Your task to perform on an android device: open a bookmark in the chrome app Image 0: 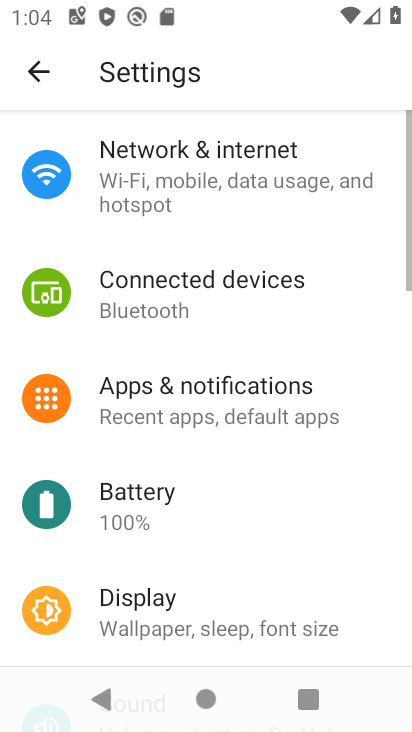
Step 0: press home button
Your task to perform on an android device: open a bookmark in the chrome app Image 1: 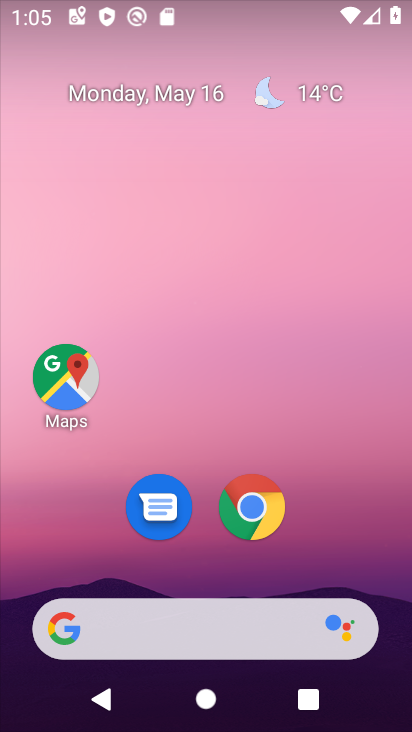
Step 1: click (255, 511)
Your task to perform on an android device: open a bookmark in the chrome app Image 2: 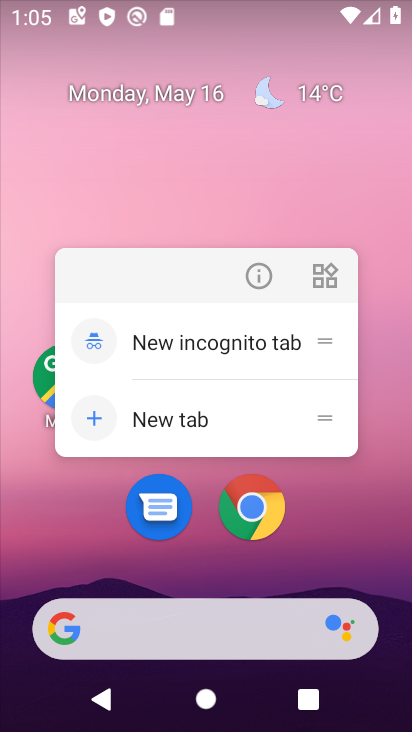
Step 2: click (255, 511)
Your task to perform on an android device: open a bookmark in the chrome app Image 3: 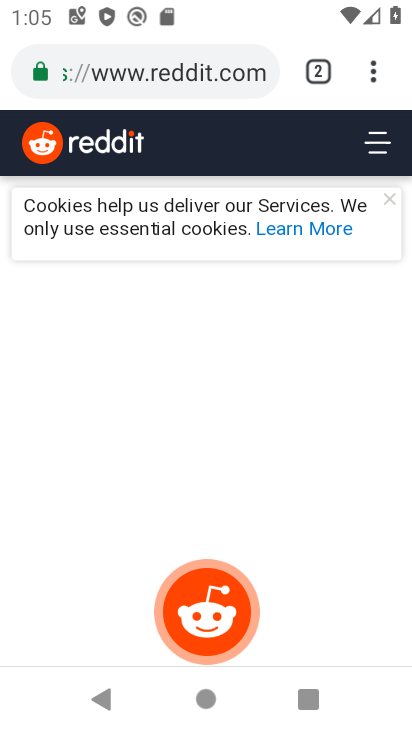
Step 3: click (366, 70)
Your task to perform on an android device: open a bookmark in the chrome app Image 4: 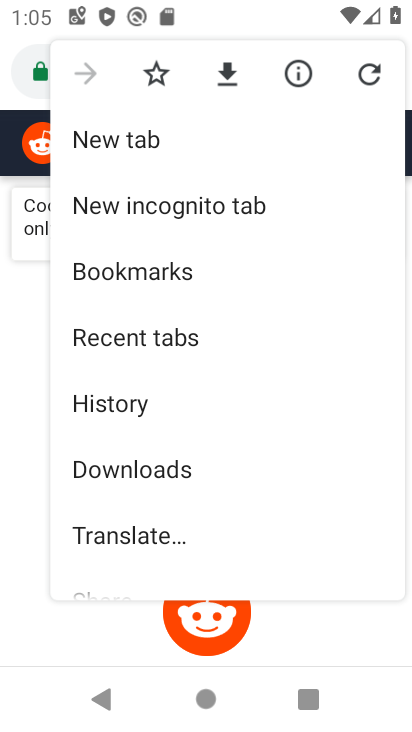
Step 4: click (147, 277)
Your task to perform on an android device: open a bookmark in the chrome app Image 5: 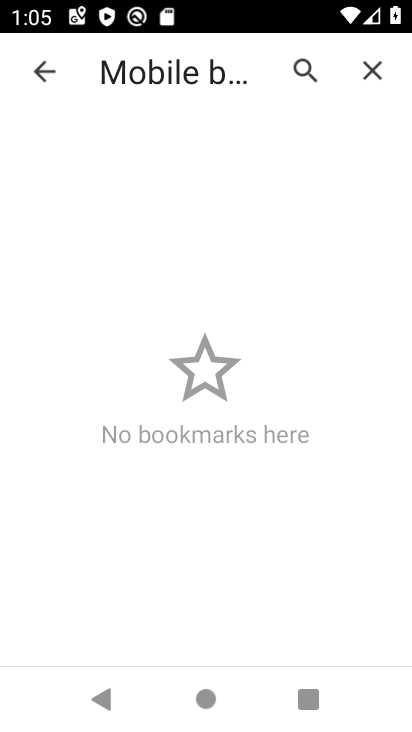
Step 5: task complete